Your task to perform on an android device: turn off sleep mode Image 0: 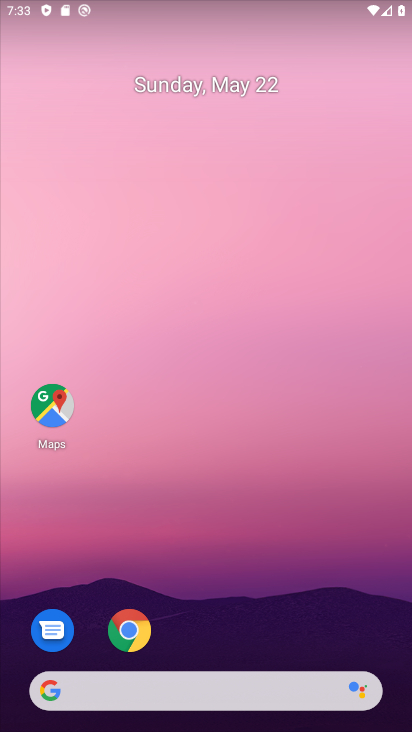
Step 0: drag from (290, 573) to (299, 121)
Your task to perform on an android device: turn off sleep mode Image 1: 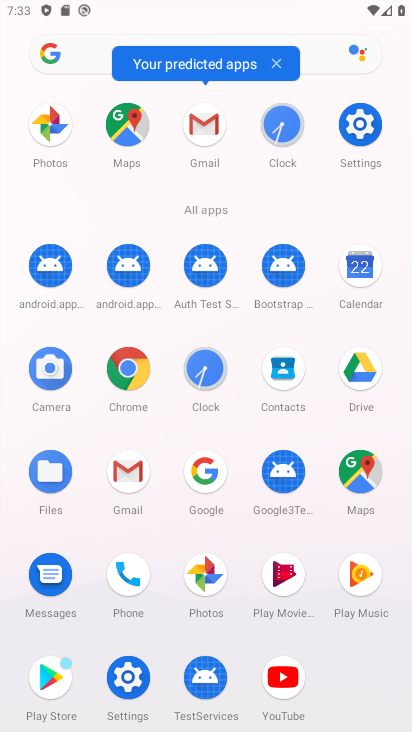
Step 1: click (352, 152)
Your task to perform on an android device: turn off sleep mode Image 2: 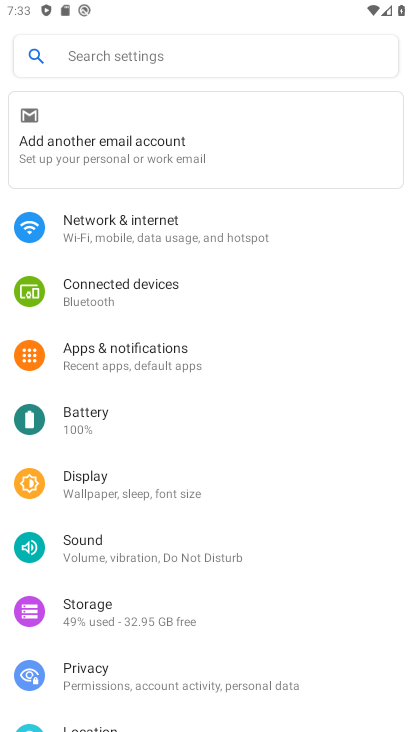
Step 2: click (175, 489)
Your task to perform on an android device: turn off sleep mode Image 3: 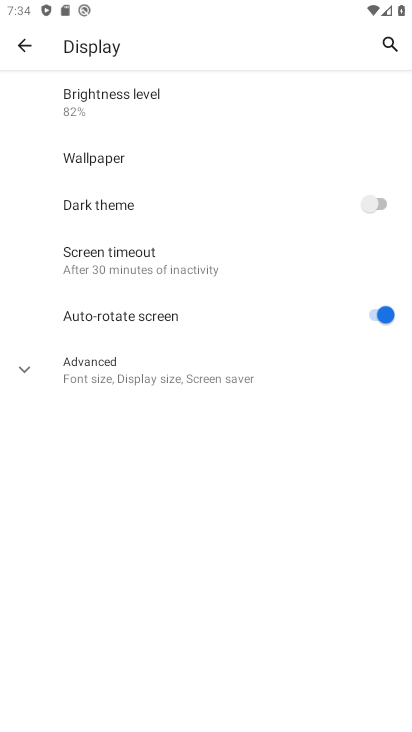
Step 3: click (222, 280)
Your task to perform on an android device: turn off sleep mode Image 4: 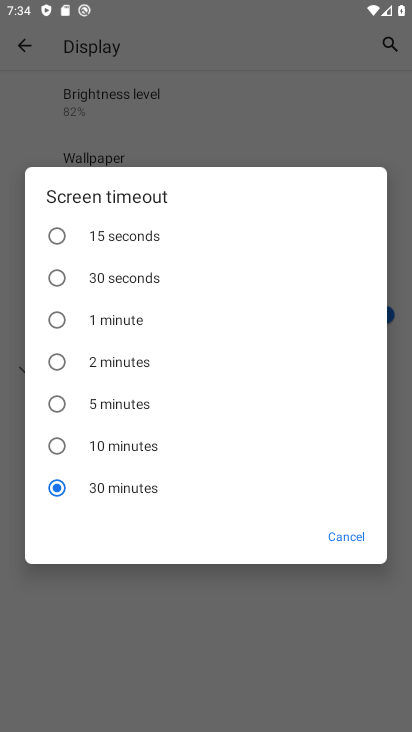
Step 4: click (123, 242)
Your task to perform on an android device: turn off sleep mode Image 5: 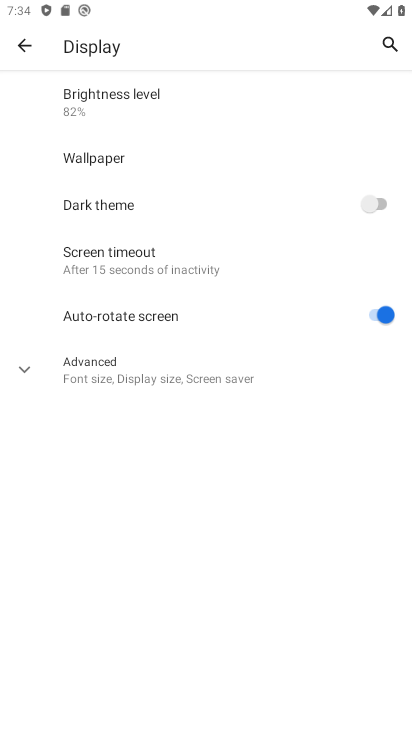
Step 5: task complete